Your task to perform on an android device: Add "logitech g502" to the cart on ebay Image 0: 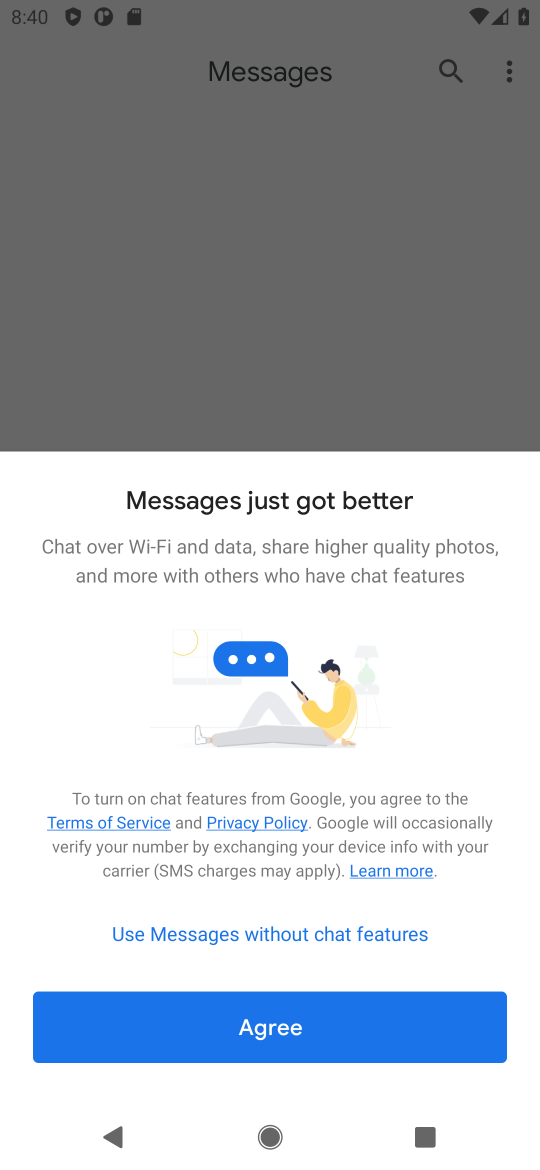
Step 0: press home button
Your task to perform on an android device: Add "logitech g502" to the cart on ebay Image 1: 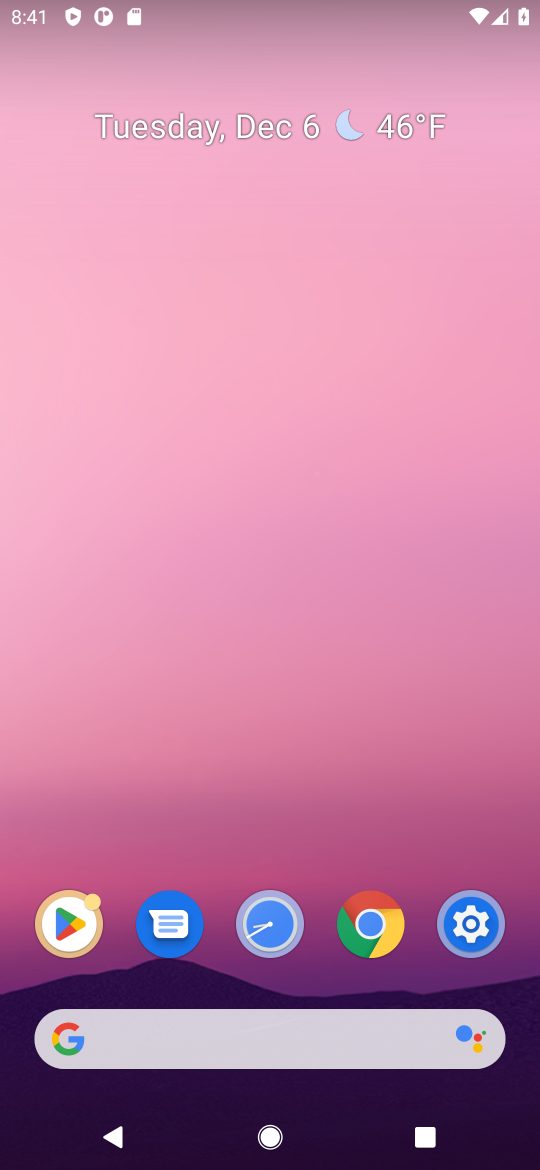
Step 1: click (331, 1024)
Your task to perform on an android device: Add "logitech g502" to the cart on ebay Image 2: 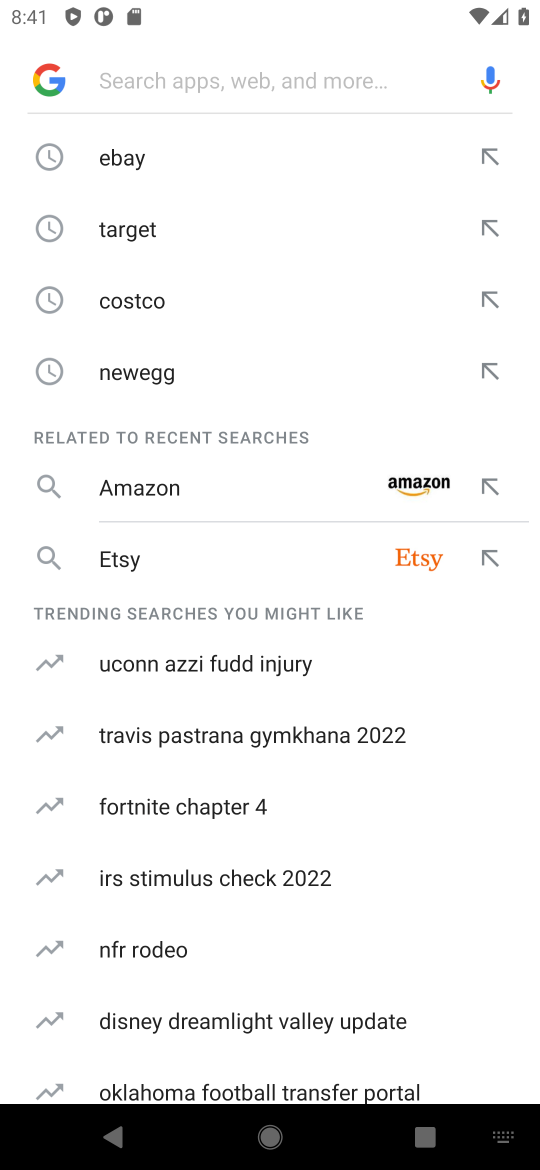
Step 2: click (220, 180)
Your task to perform on an android device: Add "logitech g502" to the cart on ebay Image 3: 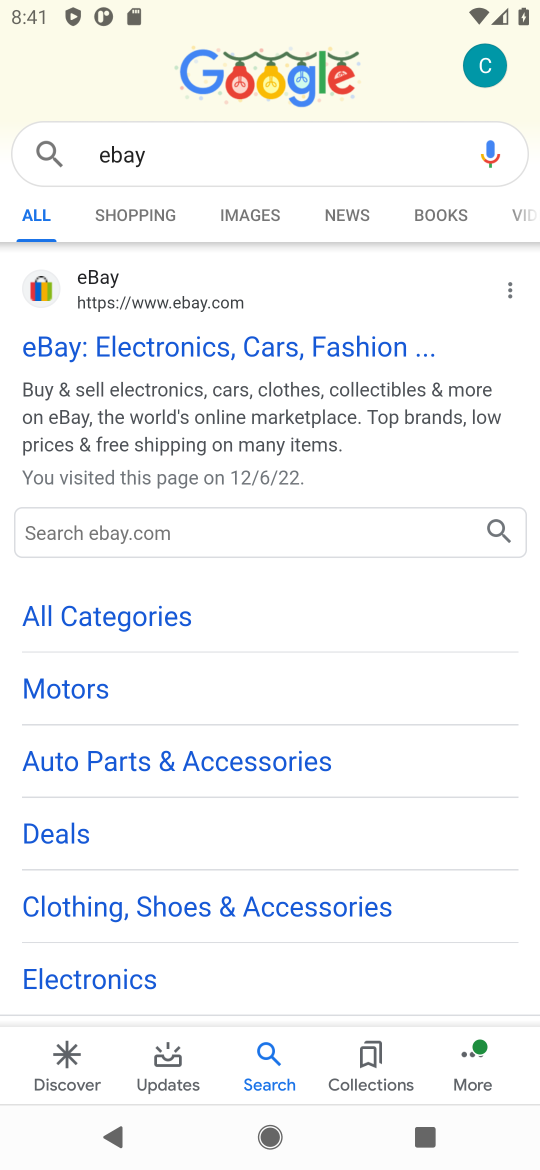
Step 3: click (198, 340)
Your task to perform on an android device: Add "logitech g502" to the cart on ebay Image 4: 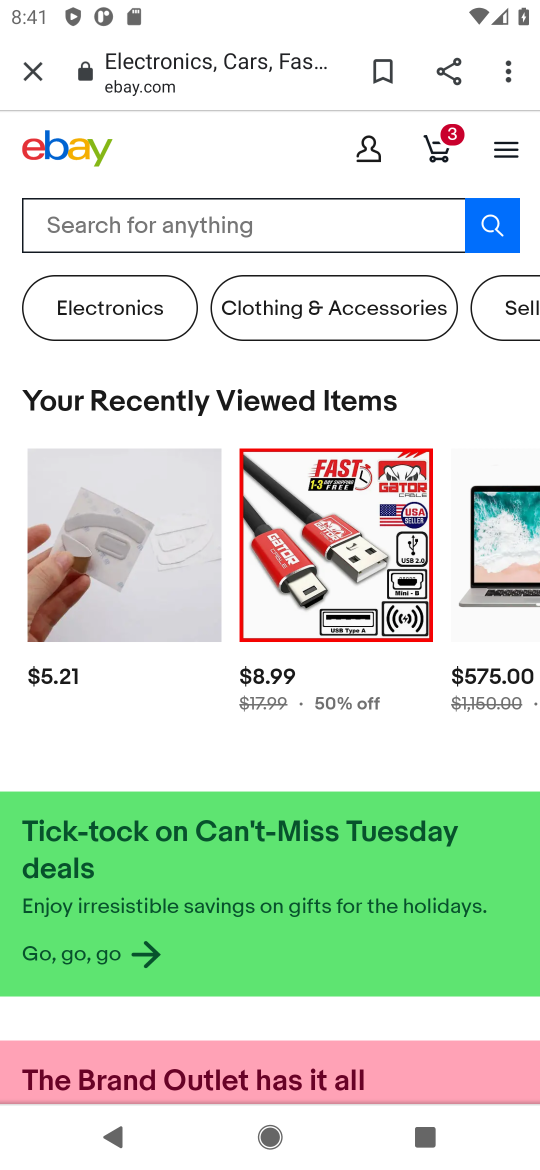
Step 4: click (219, 213)
Your task to perform on an android device: Add "logitech g502" to the cart on ebay Image 5: 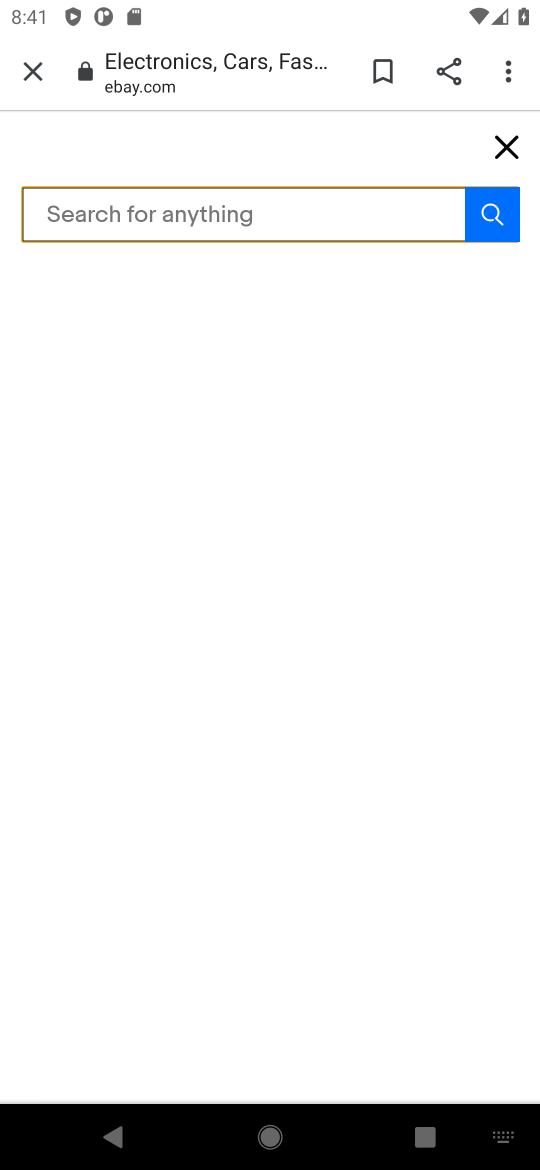
Step 5: type "logitech g502"
Your task to perform on an android device: Add "logitech g502" to the cart on ebay Image 6: 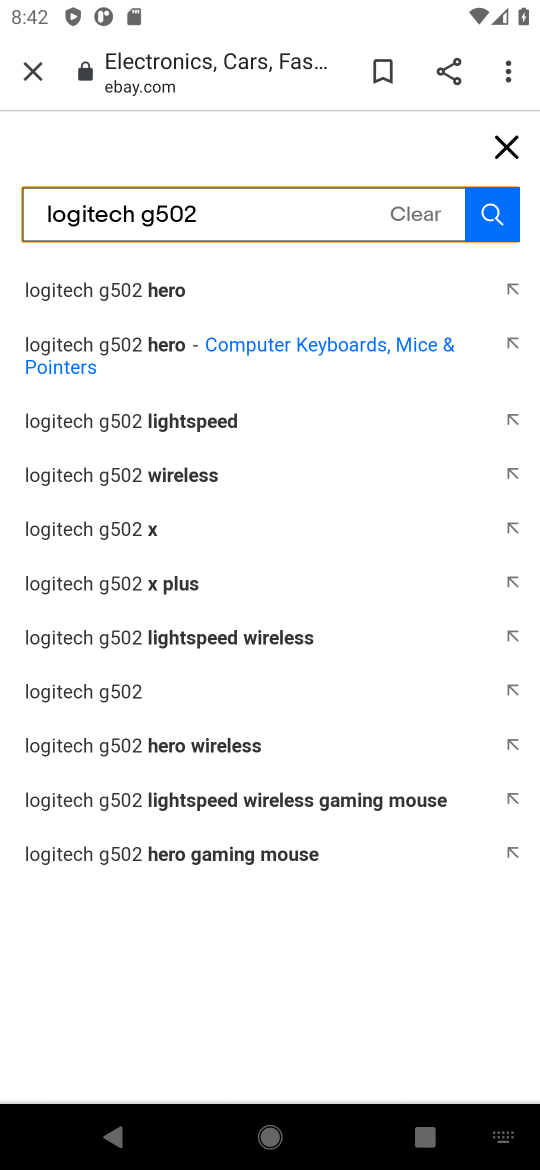
Step 6: click (494, 223)
Your task to perform on an android device: Add "logitech g502" to the cart on ebay Image 7: 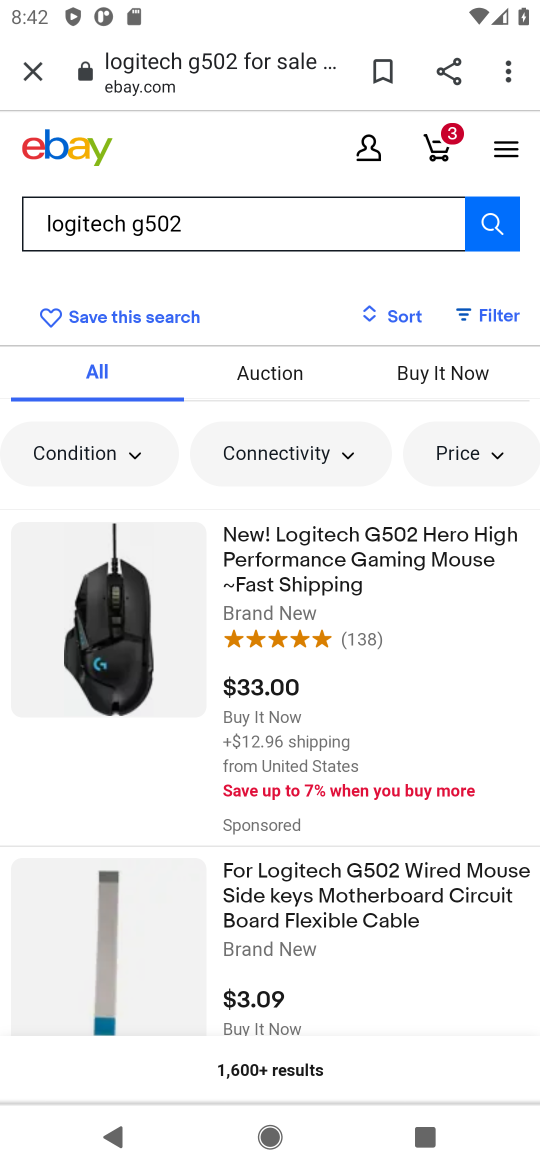
Step 7: click (347, 586)
Your task to perform on an android device: Add "logitech g502" to the cart on ebay Image 8: 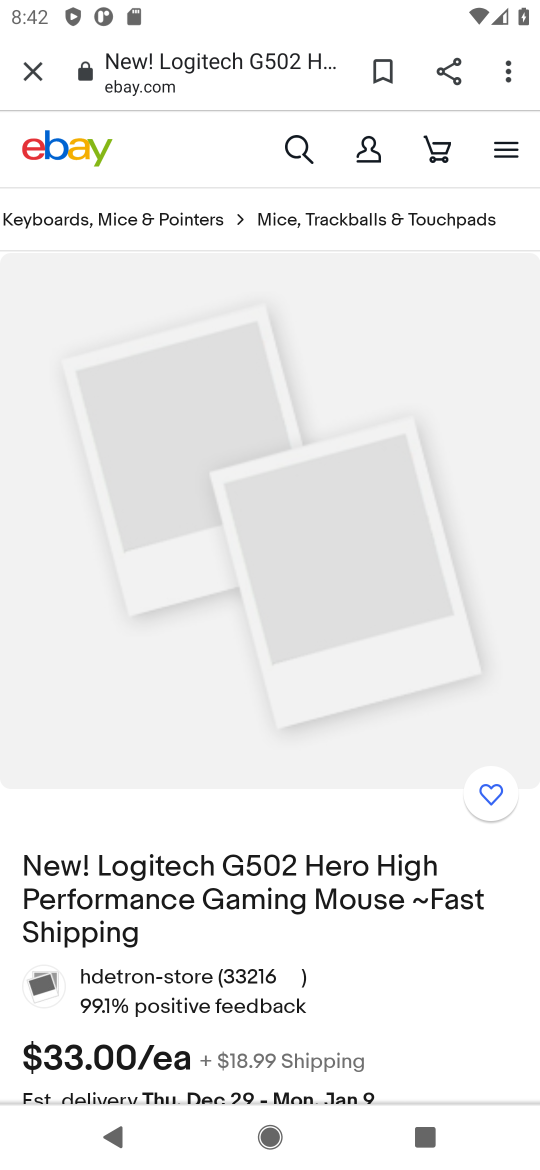
Step 8: drag from (393, 815) to (476, 367)
Your task to perform on an android device: Add "logitech g502" to the cart on ebay Image 9: 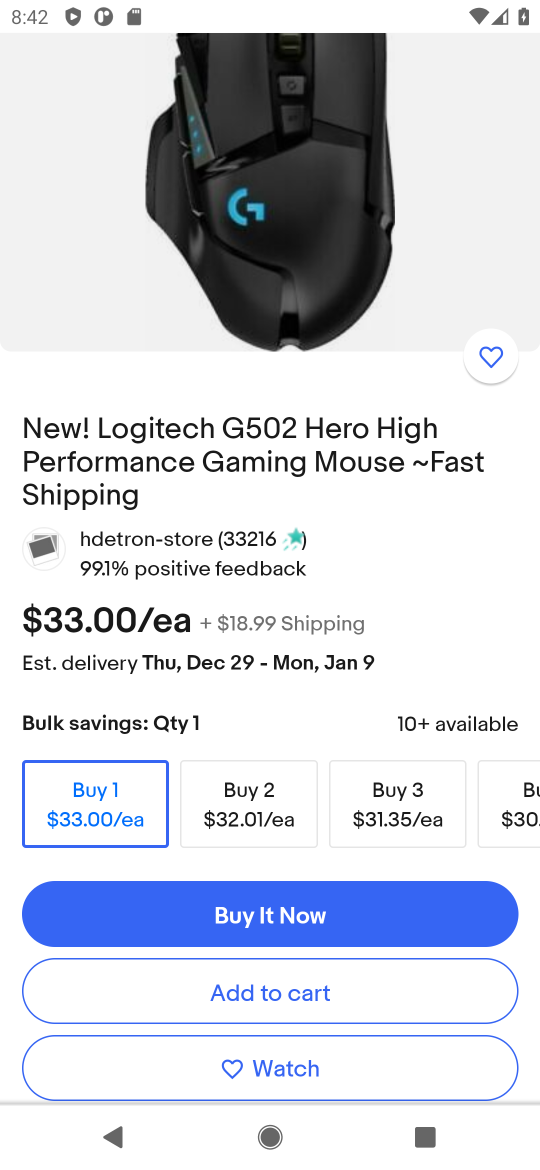
Step 9: click (333, 976)
Your task to perform on an android device: Add "logitech g502" to the cart on ebay Image 10: 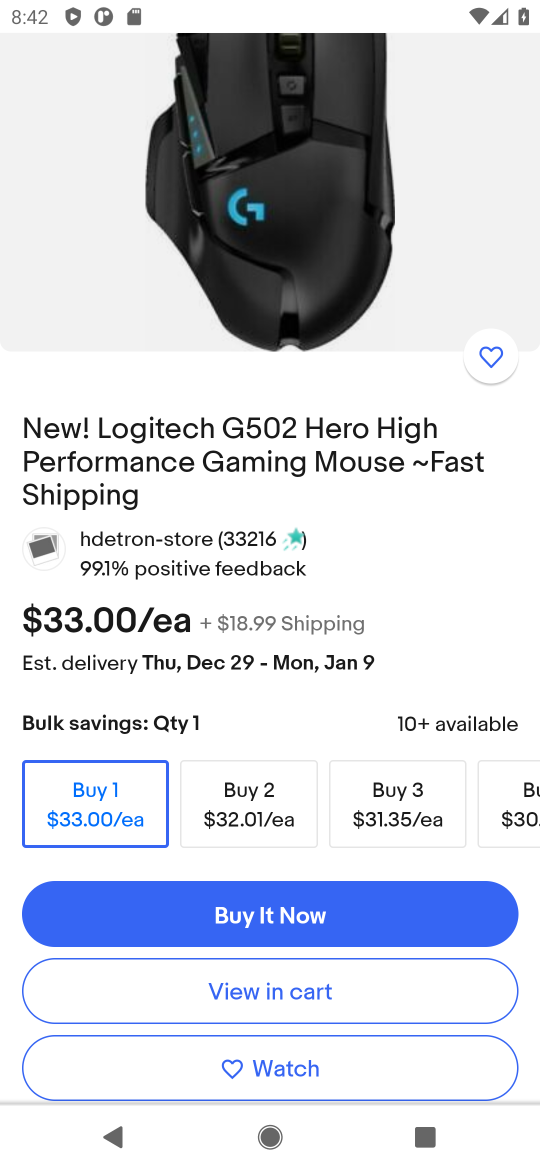
Step 10: task complete